Your task to perform on an android device: Go to Maps Image 0: 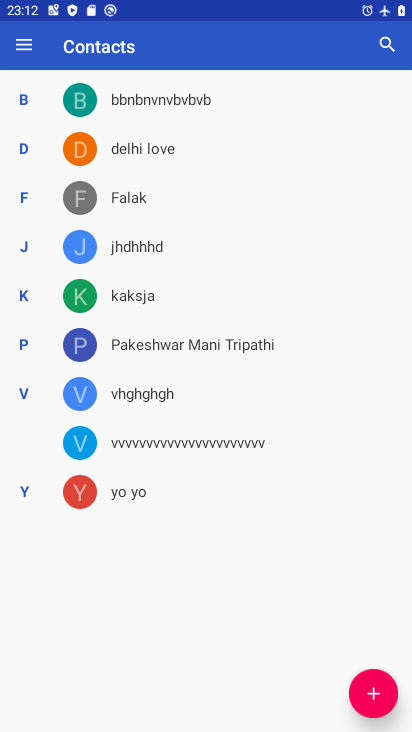
Step 0: press home button
Your task to perform on an android device: Go to Maps Image 1: 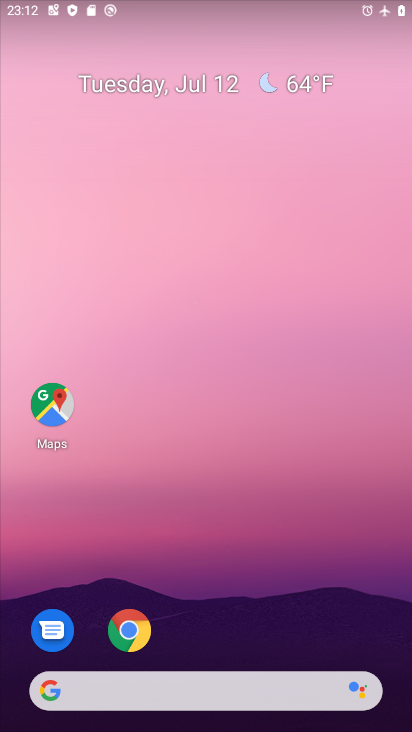
Step 1: click (64, 412)
Your task to perform on an android device: Go to Maps Image 2: 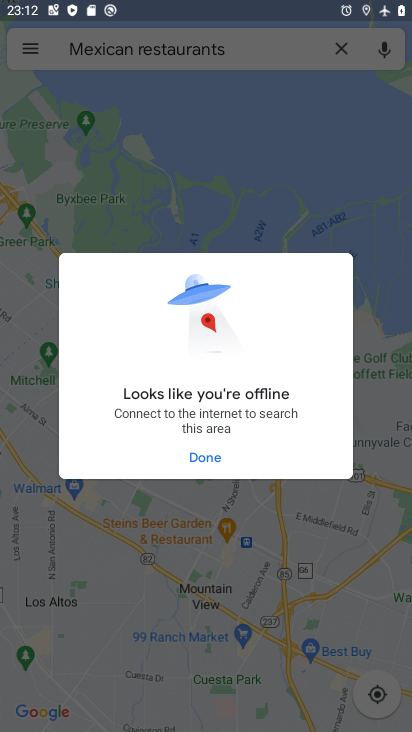
Step 2: task complete